Your task to perform on an android device: What's on my calendar tomorrow? Image 0: 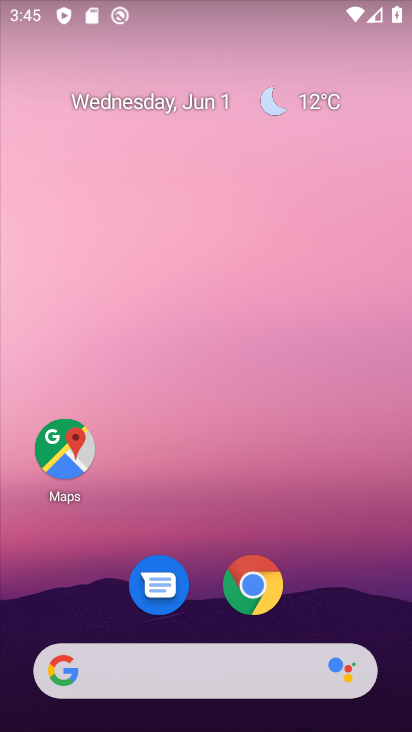
Step 0: drag from (258, 469) to (189, 28)
Your task to perform on an android device: What's on my calendar tomorrow? Image 1: 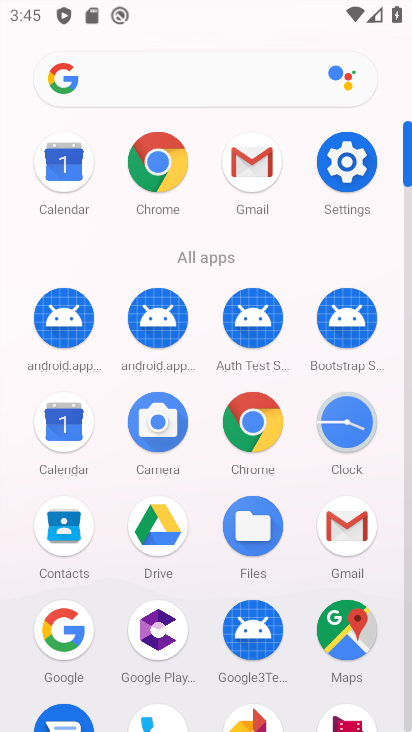
Step 1: click (53, 146)
Your task to perform on an android device: What's on my calendar tomorrow? Image 2: 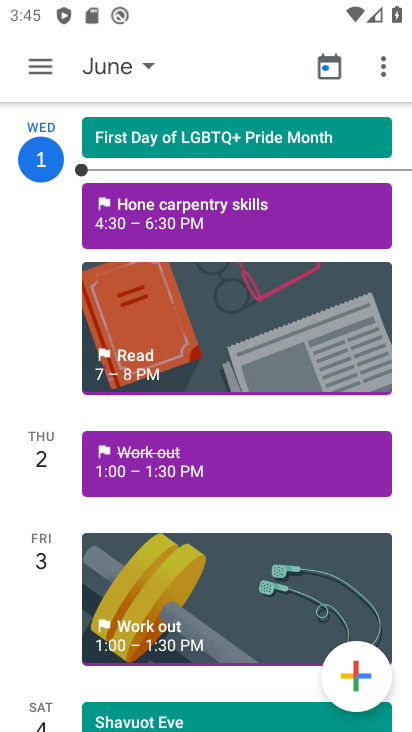
Step 2: task complete